Your task to perform on an android device: Go to display settings Image 0: 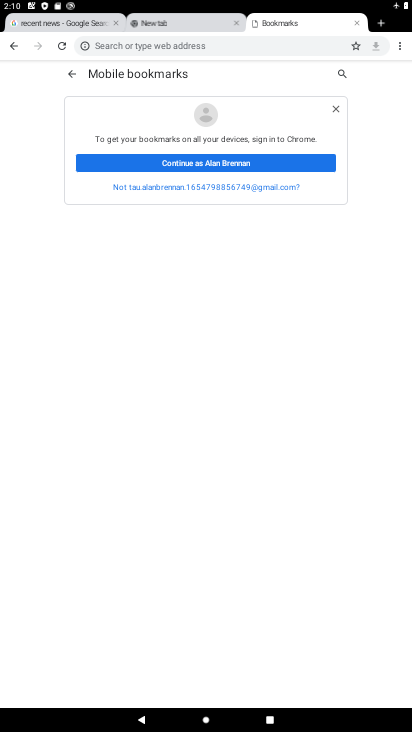
Step 0: drag from (234, 690) to (321, 342)
Your task to perform on an android device: Go to display settings Image 1: 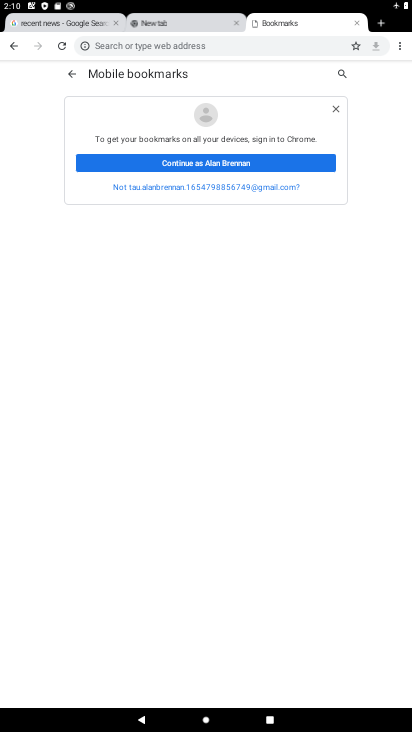
Step 1: press home button
Your task to perform on an android device: Go to display settings Image 2: 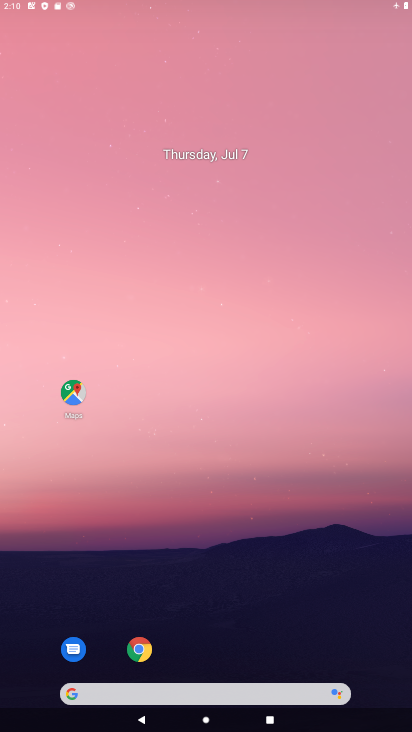
Step 2: drag from (89, 704) to (135, 140)
Your task to perform on an android device: Go to display settings Image 3: 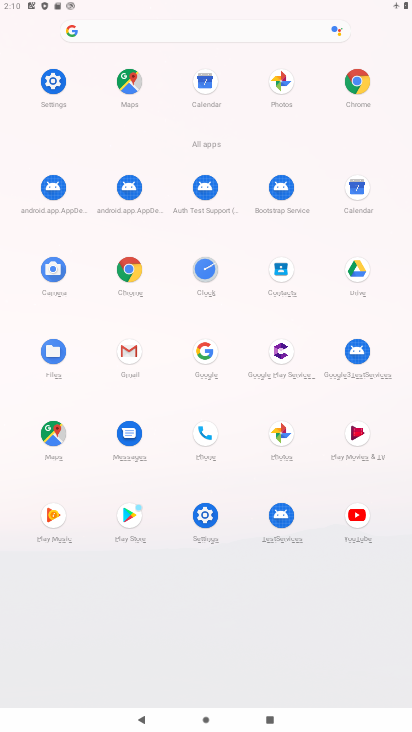
Step 3: click (47, 90)
Your task to perform on an android device: Go to display settings Image 4: 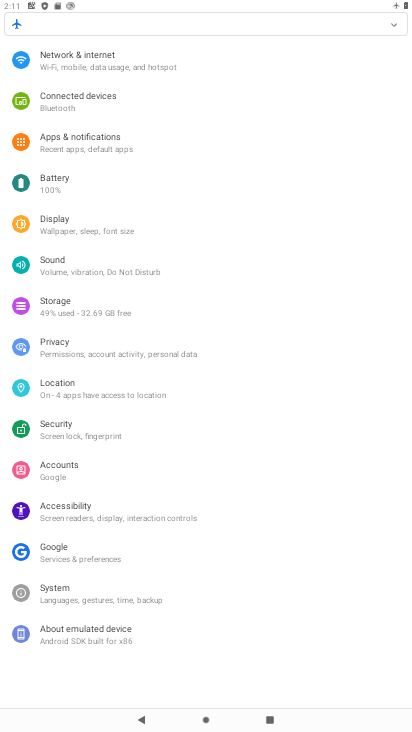
Step 4: click (91, 236)
Your task to perform on an android device: Go to display settings Image 5: 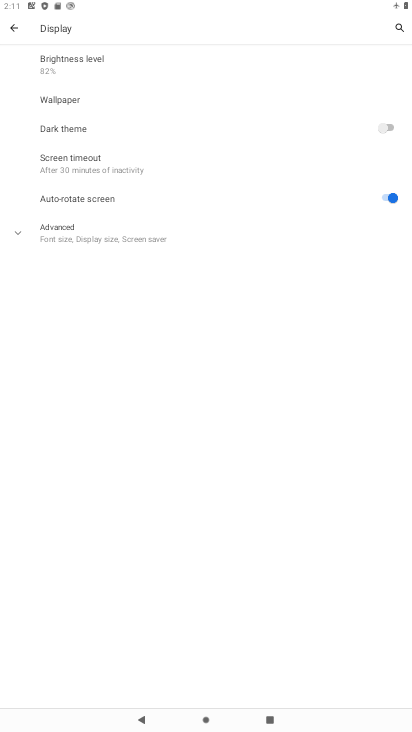
Step 5: task complete